Your task to perform on an android device: Open CNN.com Image 0: 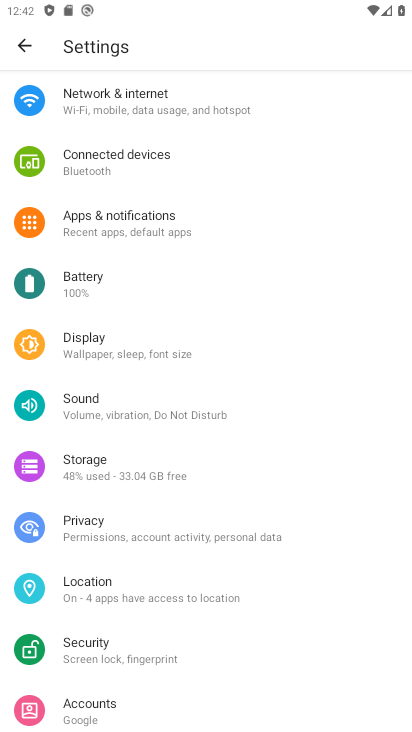
Step 0: press home button
Your task to perform on an android device: Open CNN.com Image 1: 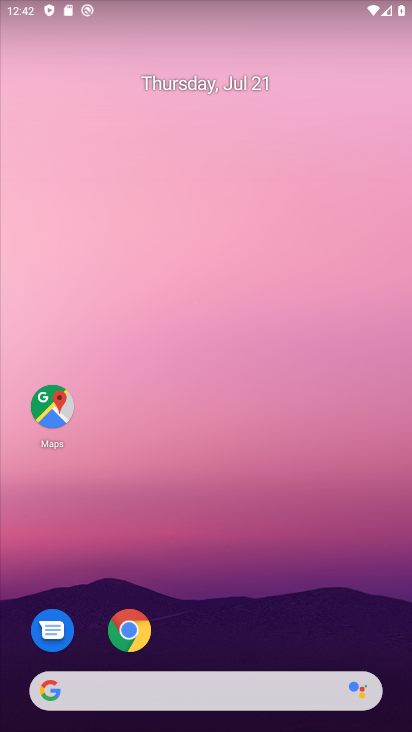
Step 1: click (115, 642)
Your task to perform on an android device: Open CNN.com Image 2: 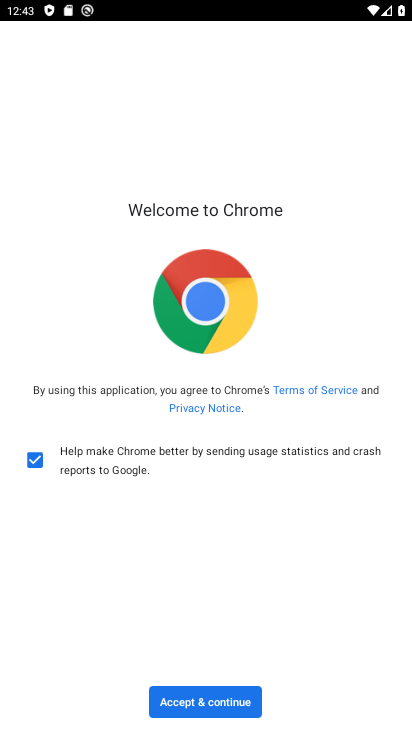
Step 2: click (170, 699)
Your task to perform on an android device: Open CNN.com Image 3: 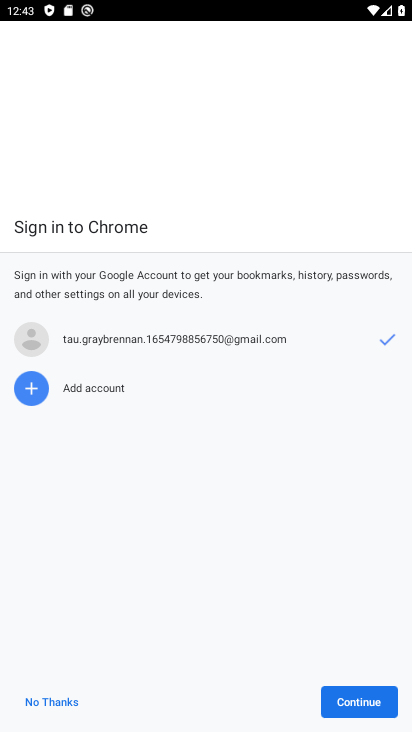
Step 3: click (370, 689)
Your task to perform on an android device: Open CNN.com Image 4: 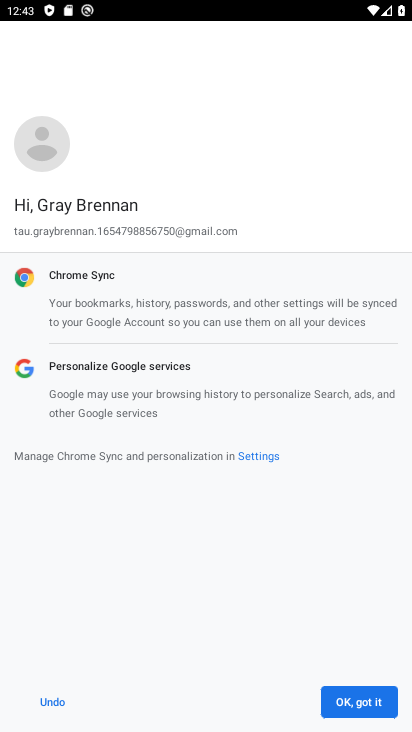
Step 4: click (370, 689)
Your task to perform on an android device: Open CNN.com Image 5: 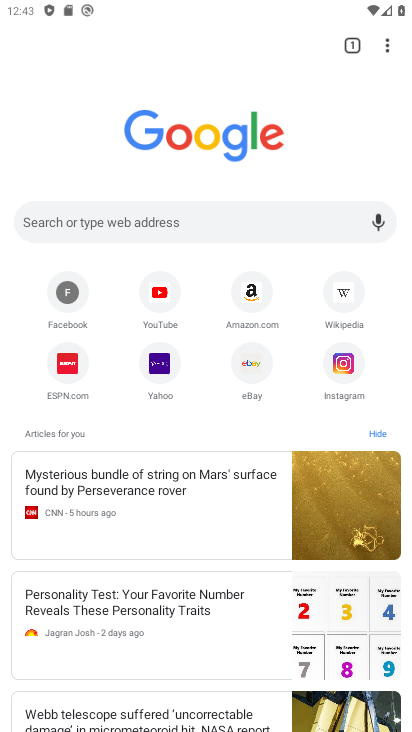
Step 5: click (142, 233)
Your task to perform on an android device: Open CNN.com Image 6: 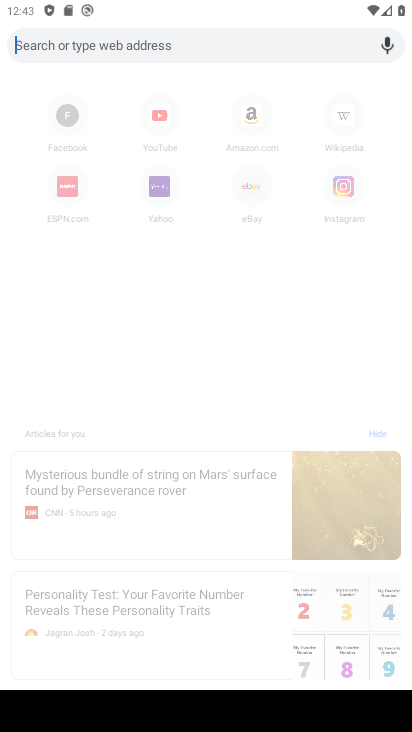
Step 6: click (77, 500)
Your task to perform on an android device: Open CNN.com Image 7: 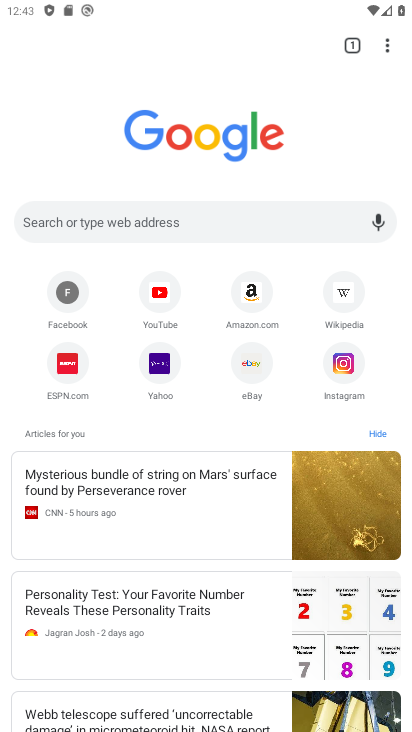
Step 7: click (77, 500)
Your task to perform on an android device: Open CNN.com Image 8: 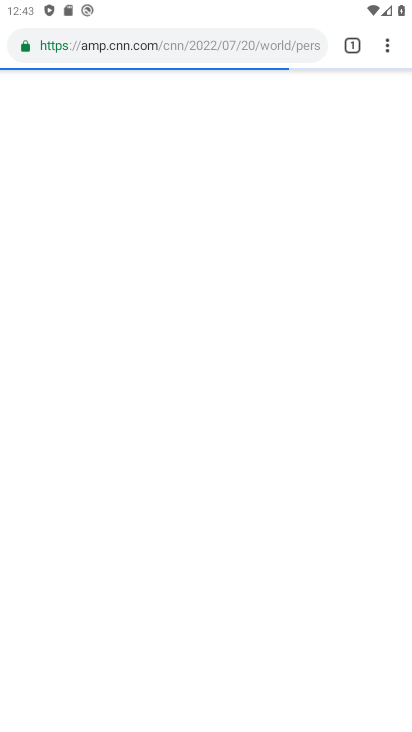
Step 8: click (77, 500)
Your task to perform on an android device: Open CNN.com Image 9: 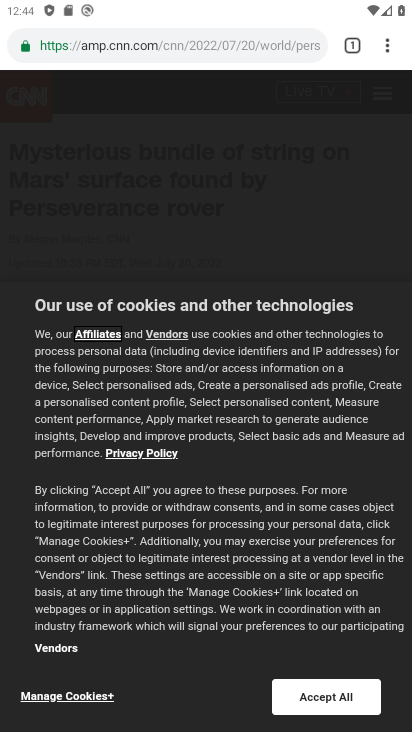
Step 9: task complete